Your task to perform on an android device: open the mobile data screen to see how much data has been used Image 0: 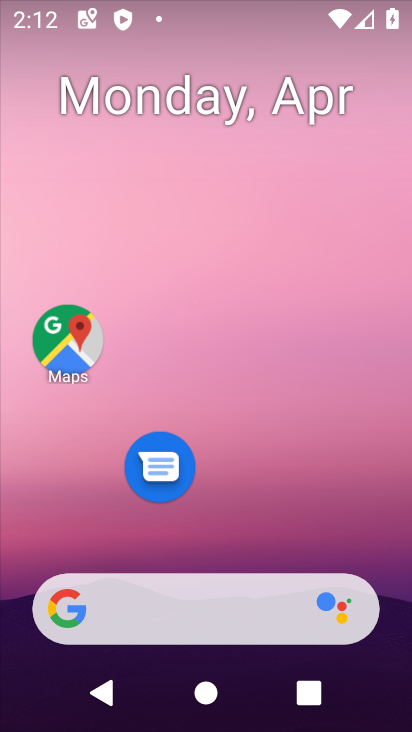
Step 0: drag from (323, 457) to (324, 7)
Your task to perform on an android device: open the mobile data screen to see how much data has been used Image 1: 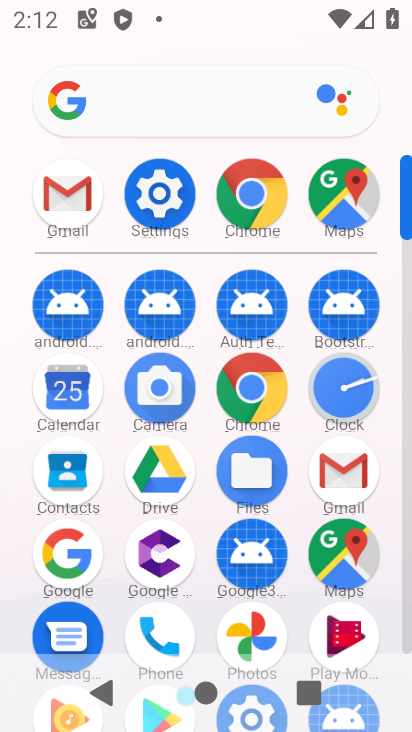
Step 1: click (166, 196)
Your task to perform on an android device: open the mobile data screen to see how much data has been used Image 2: 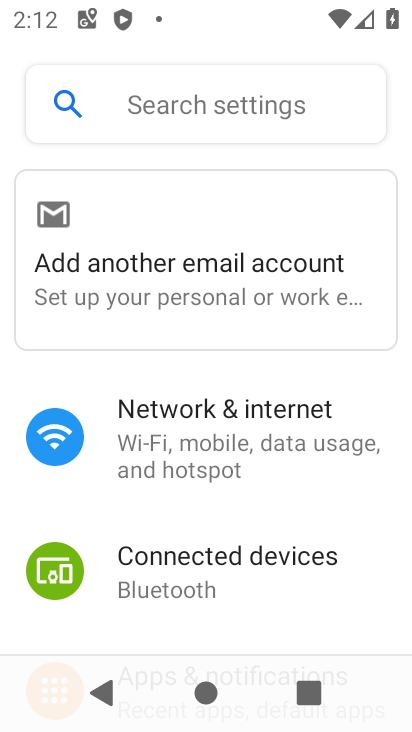
Step 2: click (232, 419)
Your task to perform on an android device: open the mobile data screen to see how much data has been used Image 3: 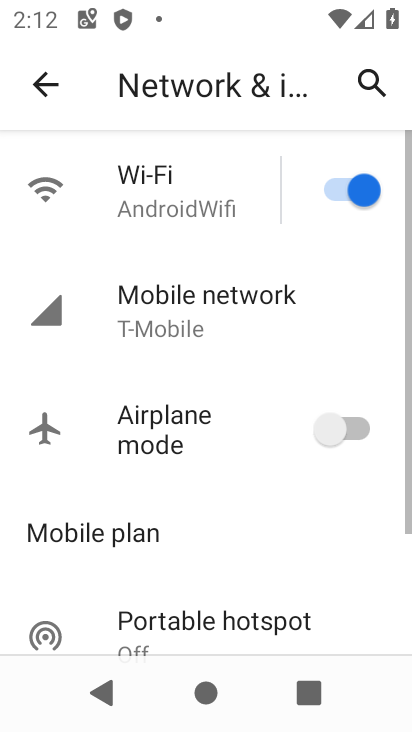
Step 3: click (169, 332)
Your task to perform on an android device: open the mobile data screen to see how much data has been used Image 4: 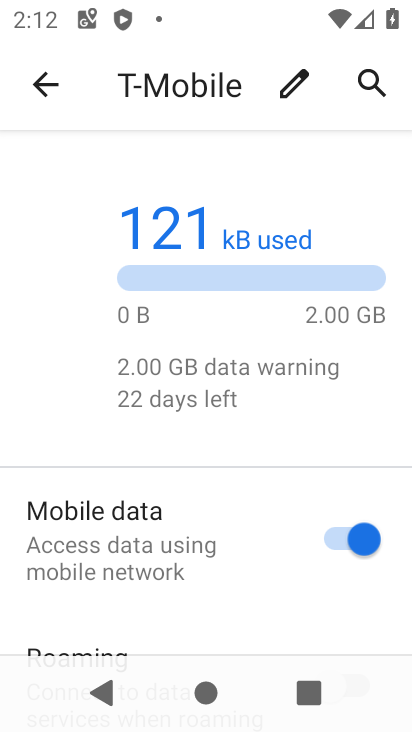
Step 4: drag from (210, 617) to (210, 186)
Your task to perform on an android device: open the mobile data screen to see how much data has been used Image 5: 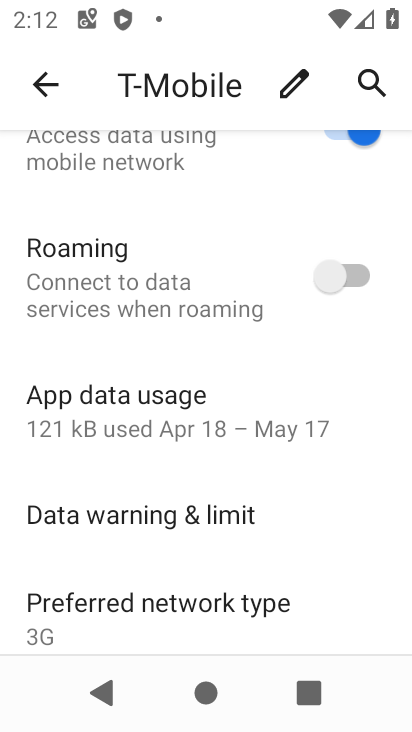
Step 5: click (174, 424)
Your task to perform on an android device: open the mobile data screen to see how much data has been used Image 6: 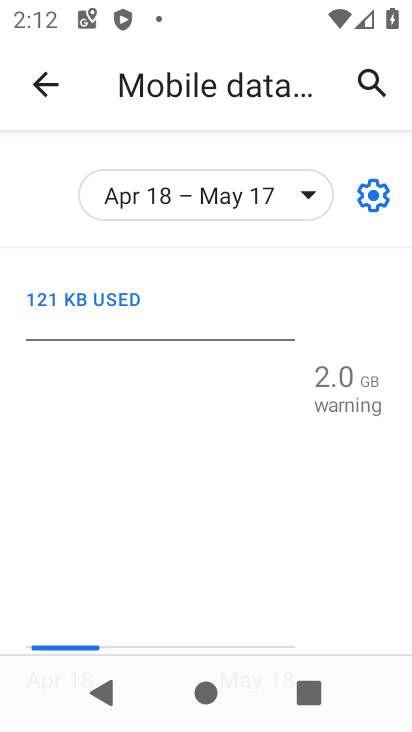
Step 6: task complete